Your task to perform on an android device: add a contact in the contacts app Image 0: 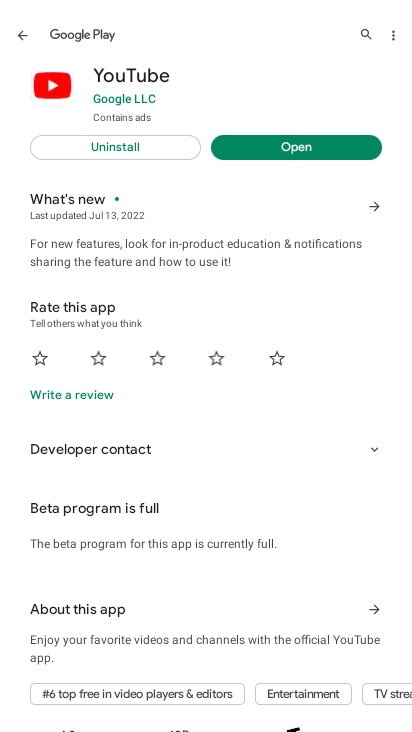
Step 0: press home button
Your task to perform on an android device: add a contact in the contacts app Image 1: 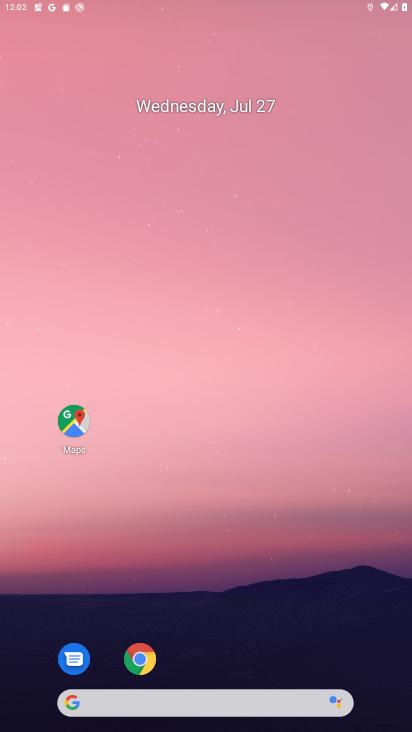
Step 1: drag from (205, 698) to (163, 0)
Your task to perform on an android device: add a contact in the contacts app Image 2: 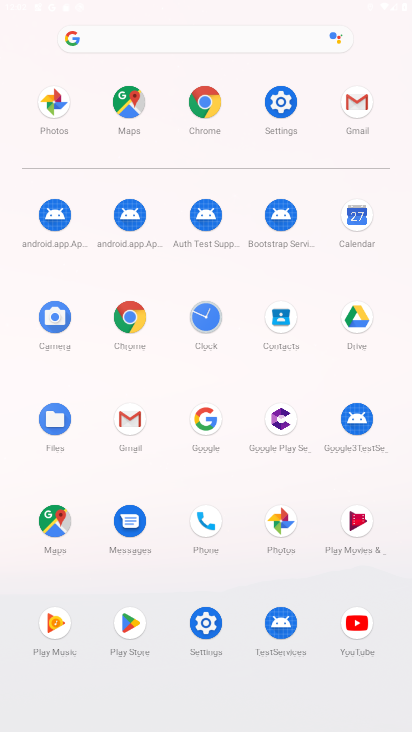
Step 2: click (289, 313)
Your task to perform on an android device: add a contact in the contacts app Image 3: 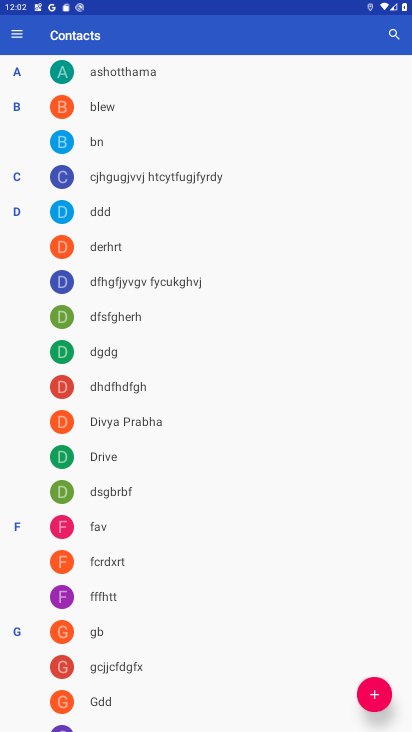
Step 3: click (373, 684)
Your task to perform on an android device: add a contact in the contacts app Image 4: 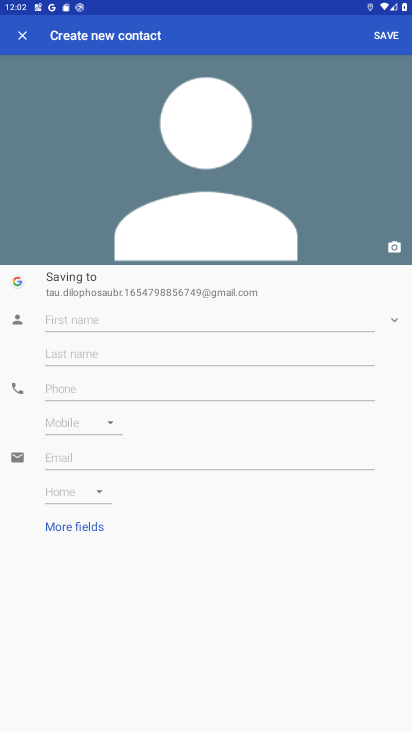
Step 4: click (332, 323)
Your task to perform on an android device: add a contact in the contacts app Image 5: 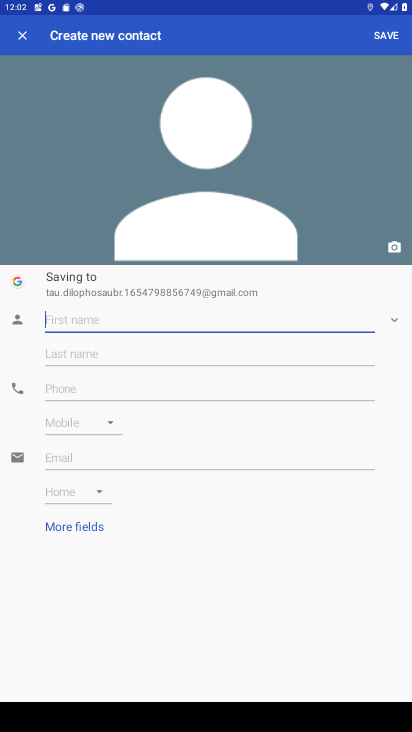
Step 5: type "shraddha"
Your task to perform on an android device: add a contact in the contacts app Image 6: 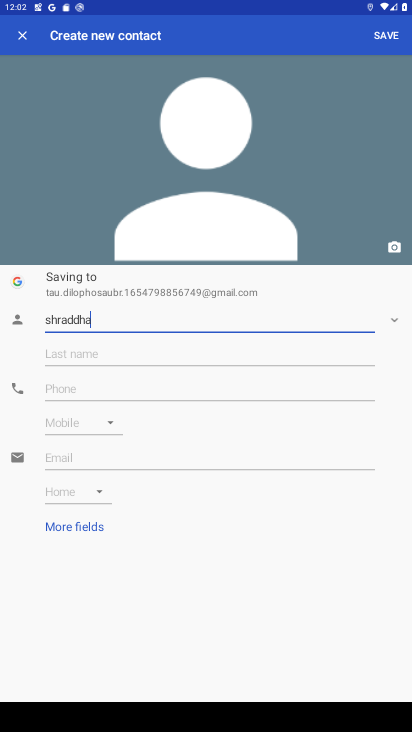
Step 6: click (142, 388)
Your task to perform on an android device: add a contact in the contacts app Image 7: 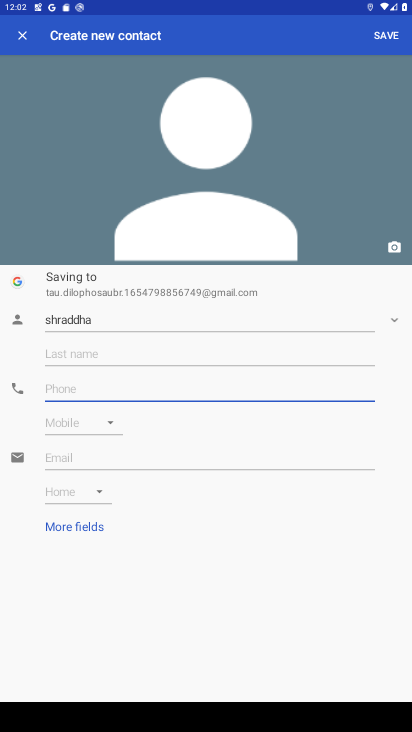
Step 7: type "9897676545"
Your task to perform on an android device: add a contact in the contacts app Image 8: 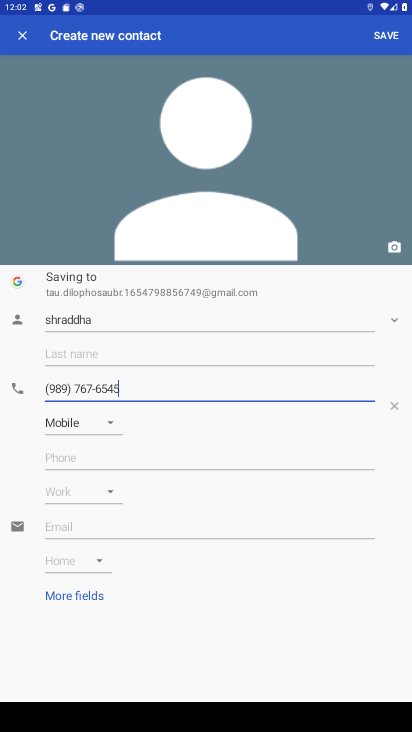
Step 8: click (387, 31)
Your task to perform on an android device: add a contact in the contacts app Image 9: 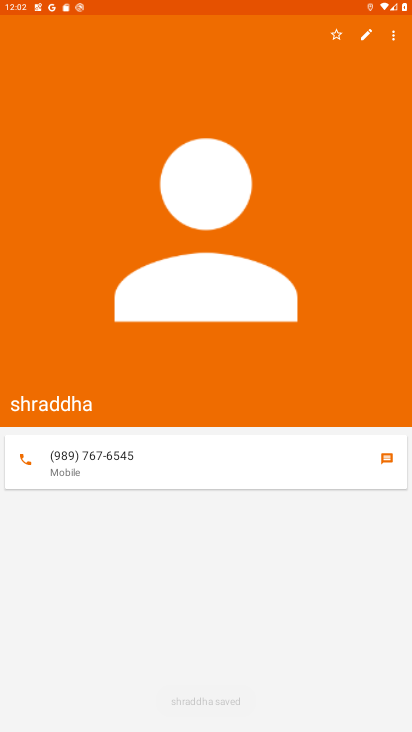
Step 9: task complete